Your task to perform on an android device: delete the emails in spam in the gmail app Image 0: 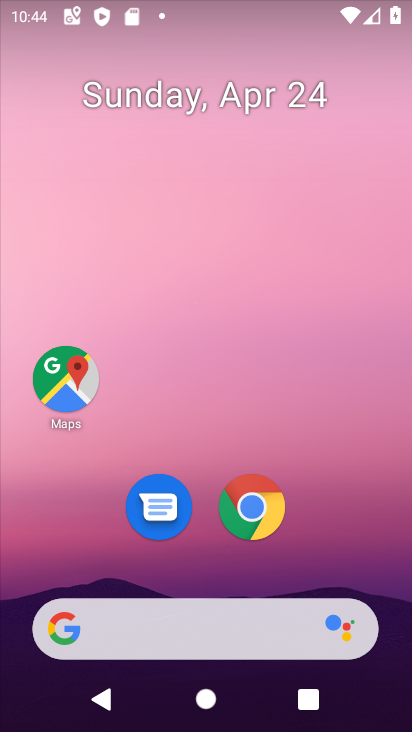
Step 0: drag from (380, 545) to (325, 84)
Your task to perform on an android device: delete the emails in spam in the gmail app Image 1: 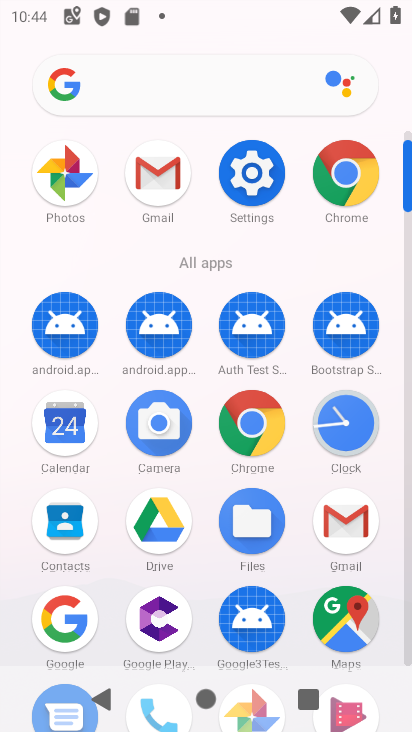
Step 1: click (351, 514)
Your task to perform on an android device: delete the emails in spam in the gmail app Image 2: 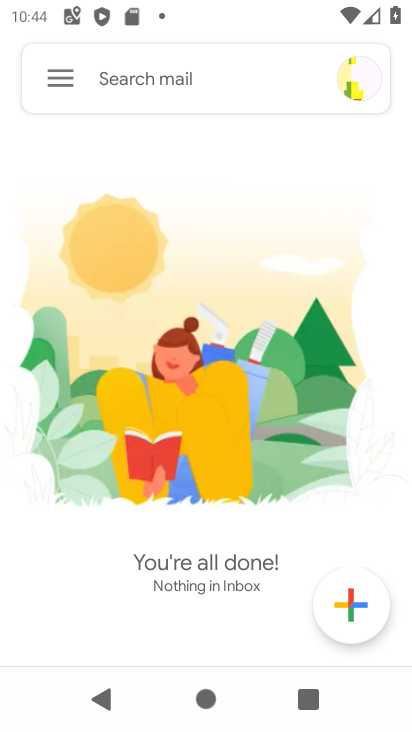
Step 2: click (60, 68)
Your task to perform on an android device: delete the emails in spam in the gmail app Image 3: 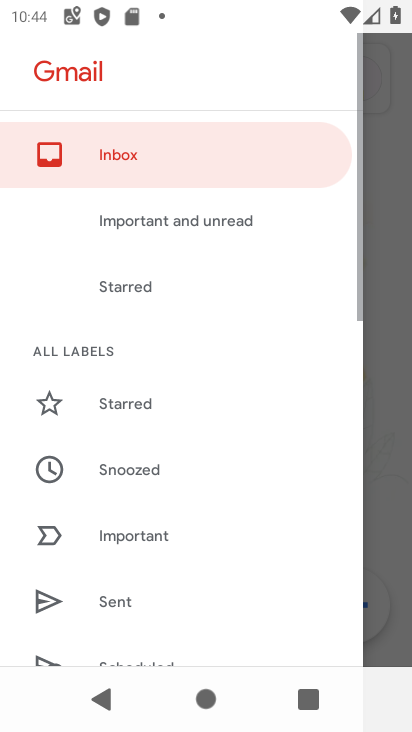
Step 3: drag from (185, 588) to (138, 191)
Your task to perform on an android device: delete the emails in spam in the gmail app Image 4: 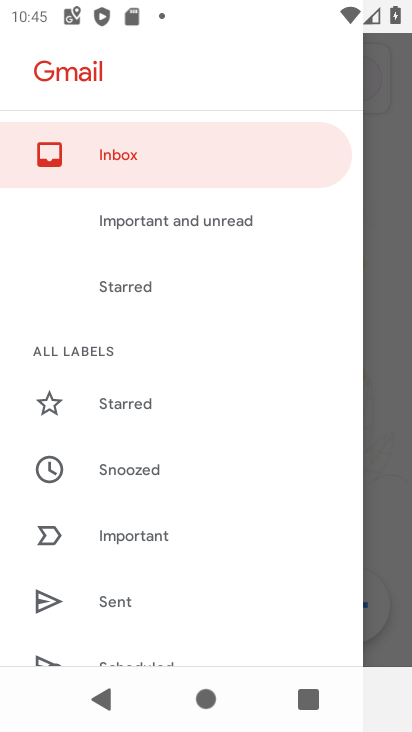
Step 4: drag from (124, 385) to (149, 189)
Your task to perform on an android device: delete the emails in spam in the gmail app Image 5: 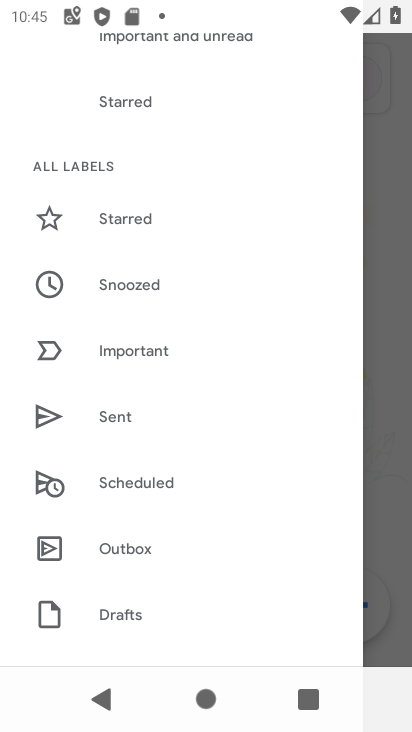
Step 5: drag from (155, 609) to (151, 429)
Your task to perform on an android device: delete the emails in spam in the gmail app Image 6: 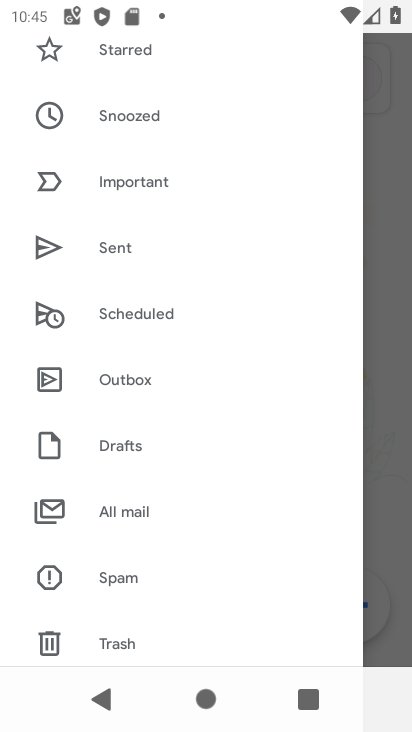
Step 6: click (146, 580)
Your task to perform on an android device: delete the emails in spam in the gmail app Image 7: 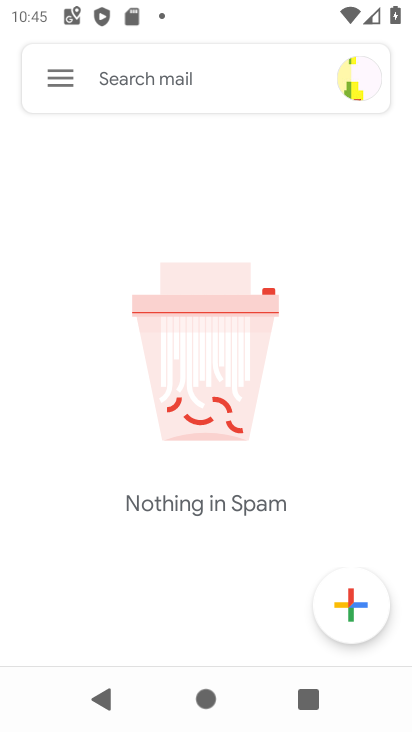
Step 7: task complete